Your task to perform on an android device: Show me productivity apps on the Play Store Image 0: 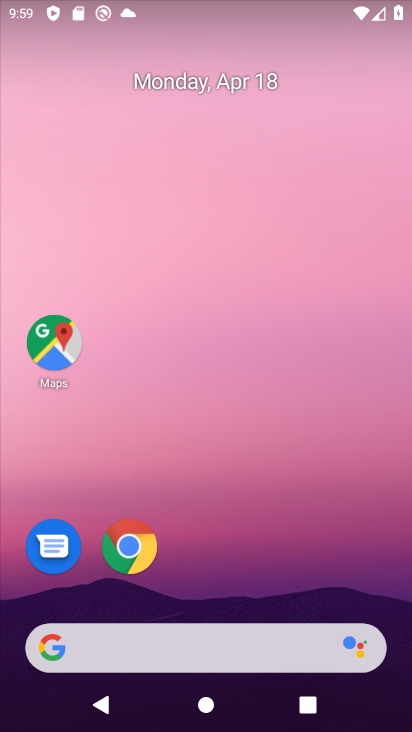
Step 0: drag from (201, 723) to (201, 67)
Your task to perform on an android device: Show me productivity apps on the Play Store Image 1: 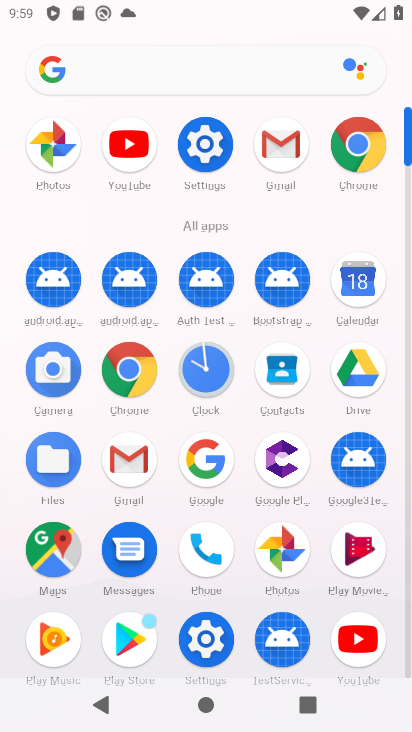
Step 1: click (130, 639)
Your task to perform on an android device: Show me productivity apps on the Play Store Image 2: 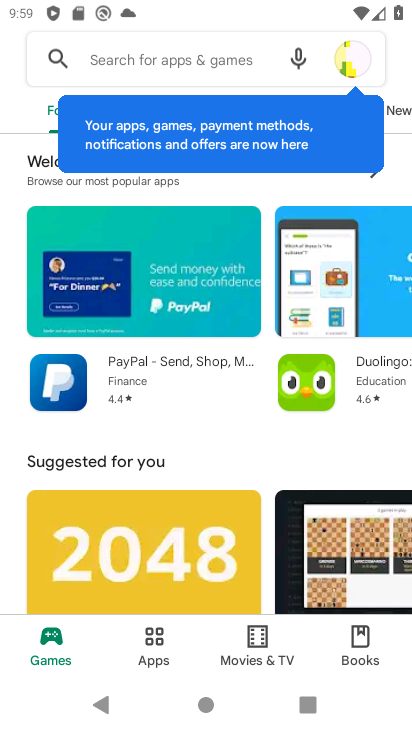
Step 2: click (148, 58)
Your task to perform on an android device: Show me productivity apps on the Play Store Image 3: 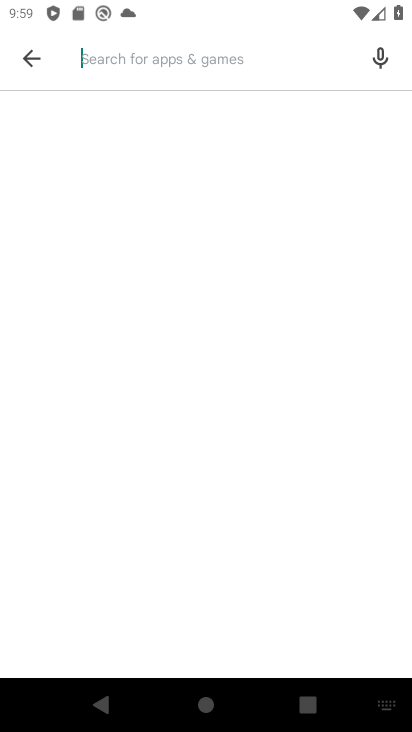
Step 3: type "productivity apps"
Your task to perform on an android device: Show me productivity apps on the Play Store Image 4: 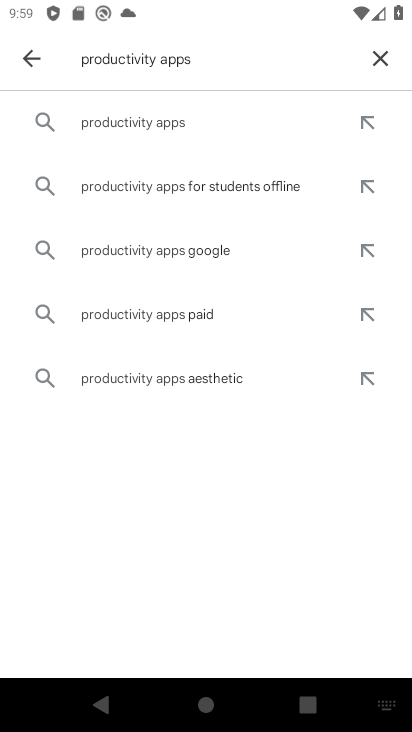
Step 4: click (136, 121)
Your task to perform on an android device: Show me productivity apps on the Play Store Image 5: 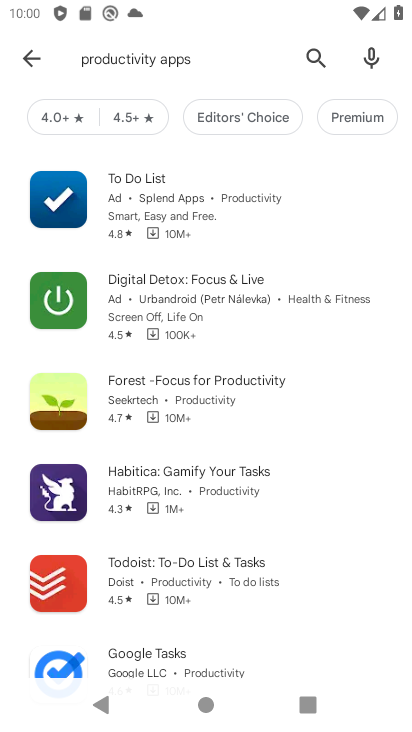
Step 5: task complete